Your task to perform on an android device: Open notification settings Image 0: 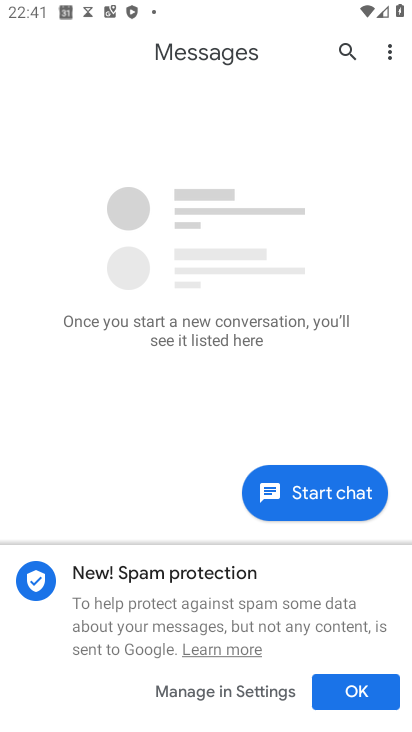
Step 0: drag from (238, 626) to (278, 341)
Your task to perform on an android device: Open notification settings Image 1: 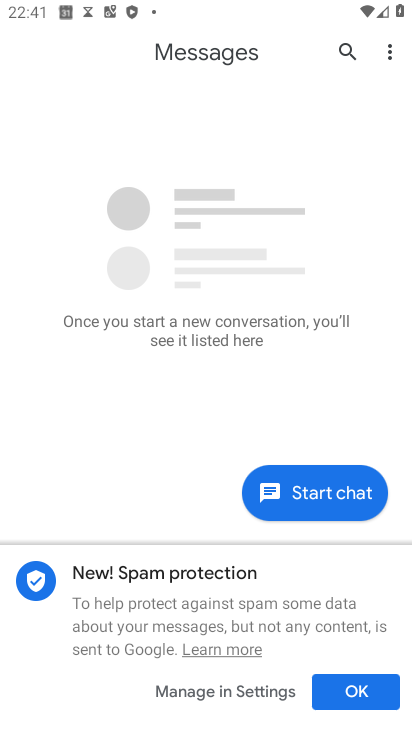
Step 1: press home button
Your task to perform on an android device: Open notification settings Image 2: 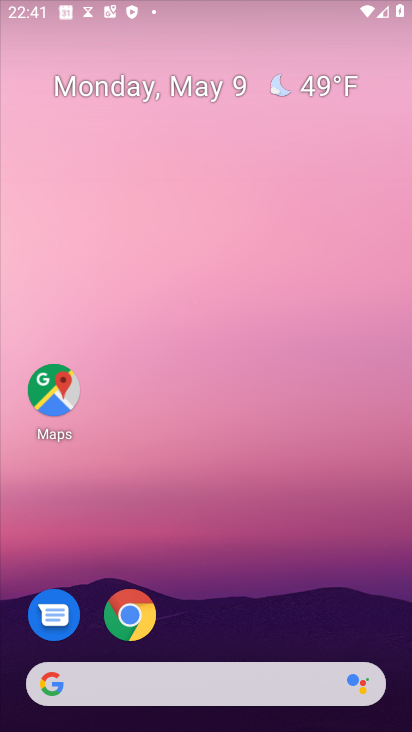
Step 2: drag from (286, 550) to (361, 21)
Your task to perform on an android device: Open notification settings Image 3: 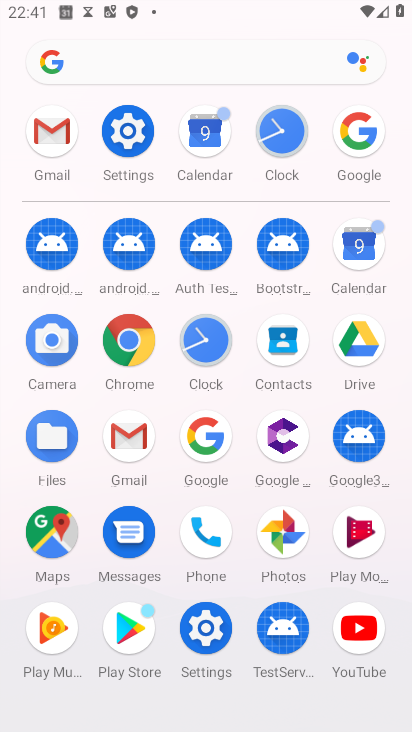
Step 3: click (128, 140)
Your task to perform on an android device: Open notification settings Image 4: 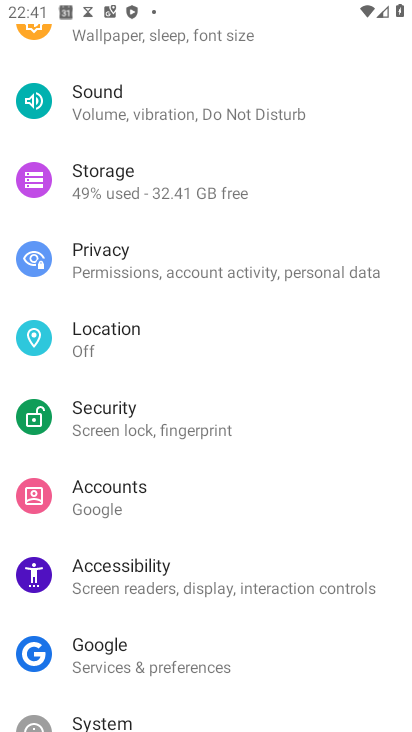
Step 4: drag from (236, 172) to (245, 576)
Your task to perform on an android device: Open notification settings Image 5: 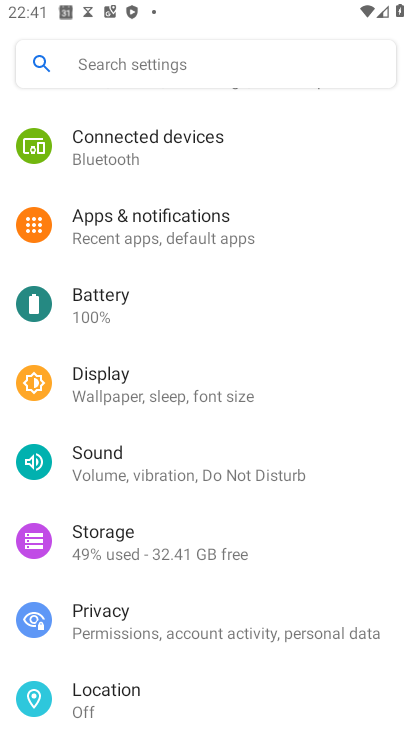
Step 5: drag from (234, 229) to (247, 478)
Your task to perform on an android device: Open notification settings Image 6: 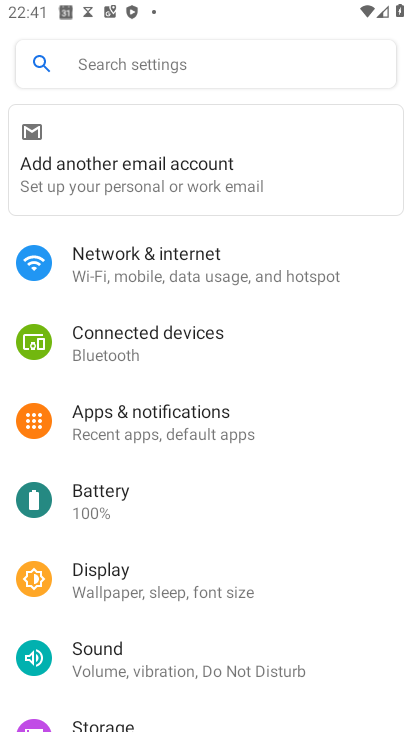
Step 6: click (234, 428)
Your task to perform on an android device: Open notification settings Image 7: 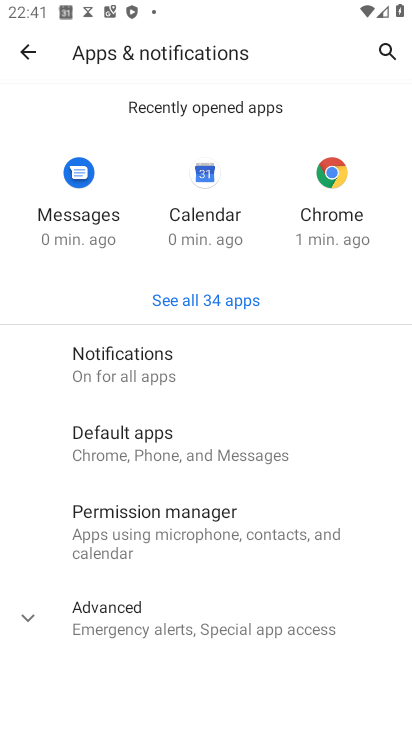
Step 7: click (208, 349)
Your task to perform on an android device: Open notification settings Image 8: 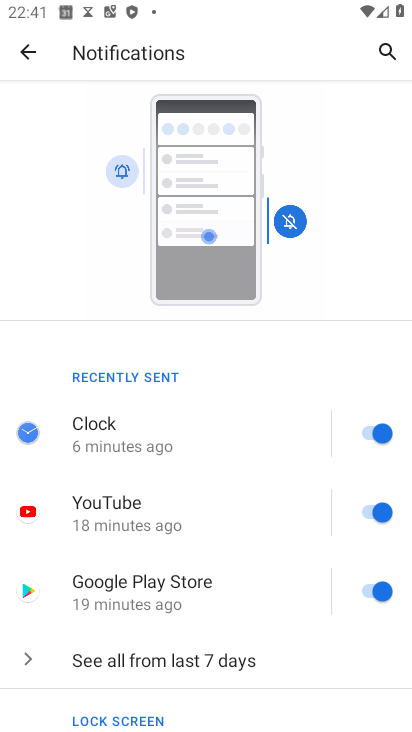
Step 8: task complete